Your task to perform on an android device: uninstall "Google Play services" Image 0: 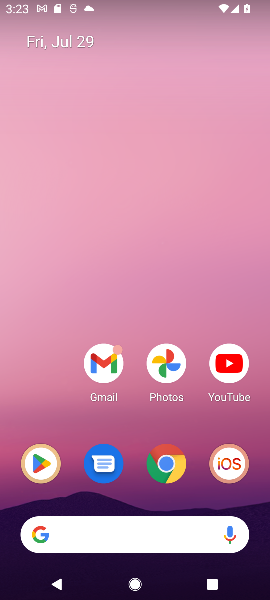
Step 0: drag from (122, 526) to (144, 201)
Your task to perform on an android device: uninstall "Google Play services" Image 1: 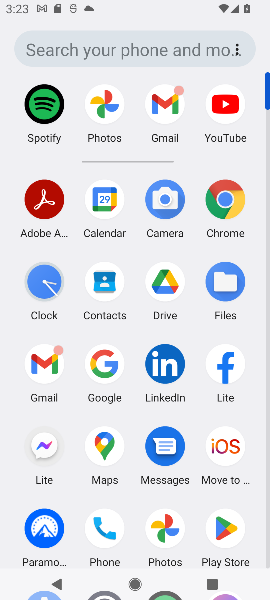
Step 1: click (227, 528)
Your task to perform on an android device: uninstall "Google Play services" Image 2: 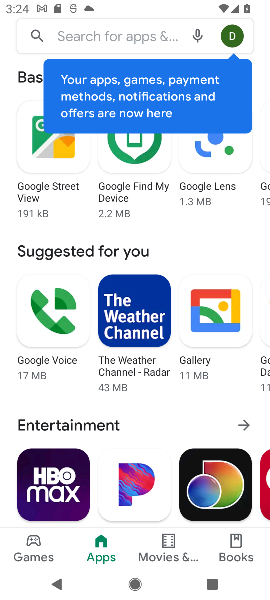
Step 2: click (147, 32)
Your task to perform on an android device: uninstall "Google Play services" Image 3: 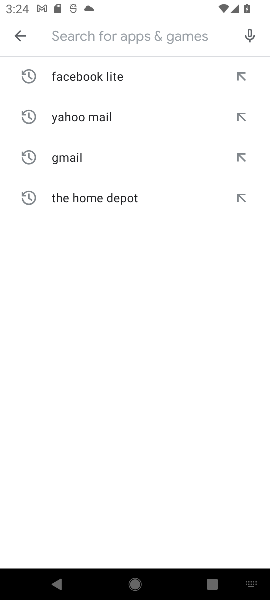
Step 3: click (115, 49)
Your task to perform on an android device: uninstall "Google Play services" Image 4: 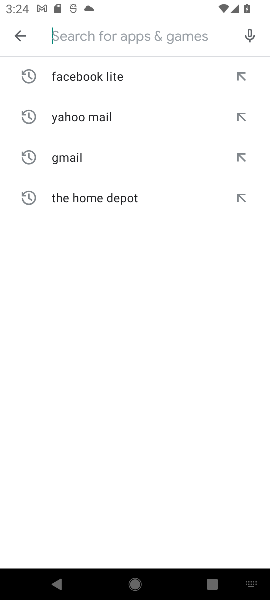
Step 4: type "Google Play services"
Your task to perform on an android device: uninstall "Google Play services" Image 5: 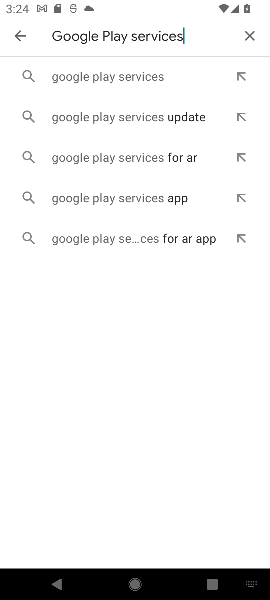
Step 5: click (149, 79)
Your task to perform on an android device: uninstall "Google Play services" Image 6: 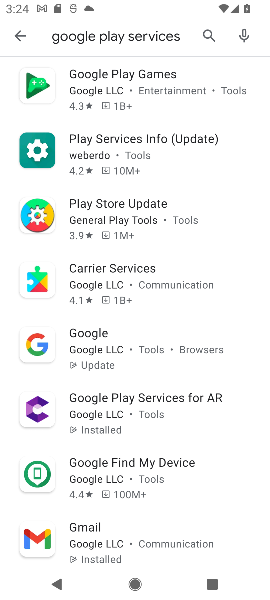
Step 6: task complete